Your task to perform on an android device: turn off improve location accuracy Image 0: 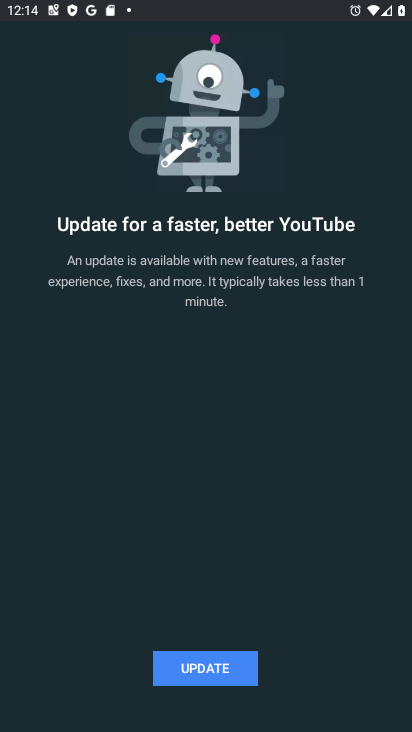
Step 0: press home button
Your task to perform on an android device: turn off improve location accuracy Image 1: 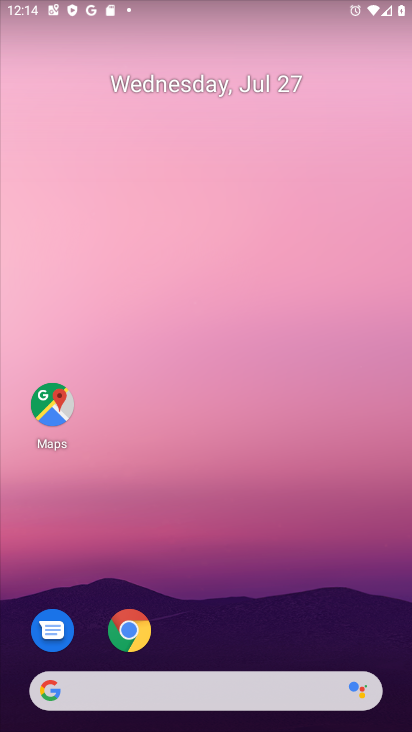
Step 1: drag from (230, 731) to (104, 84)
Your task to perform on an android device: turn off improve location accuracy Image 2: 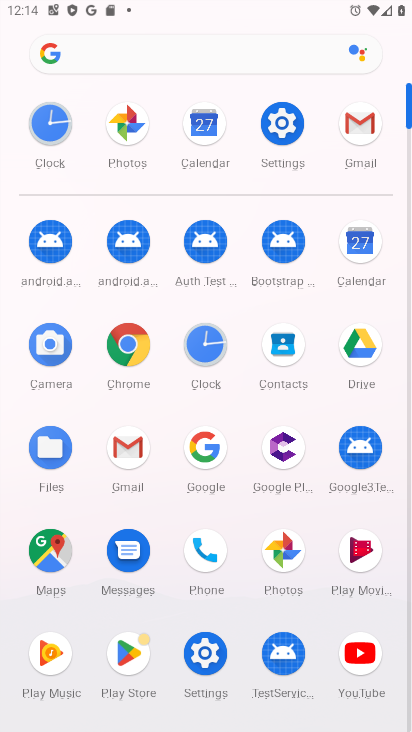
Step 2: click (296, 116)
Your task to perform on an android device: turn off improve location accuracy Image 3: 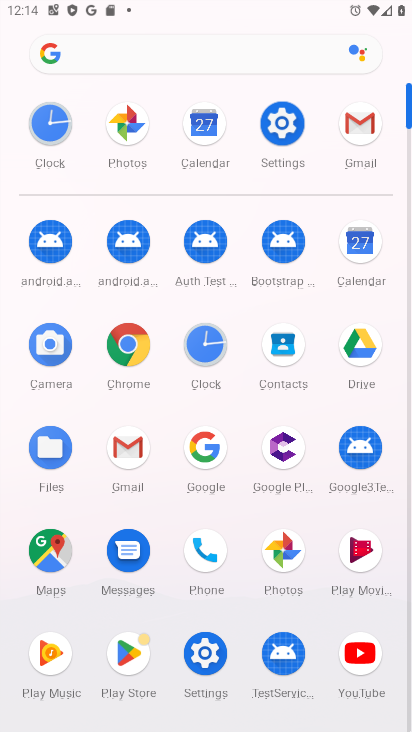
Step 3: click (296, 116)
Your task to perform on an android device: turn off improve location accuracy Image 4: 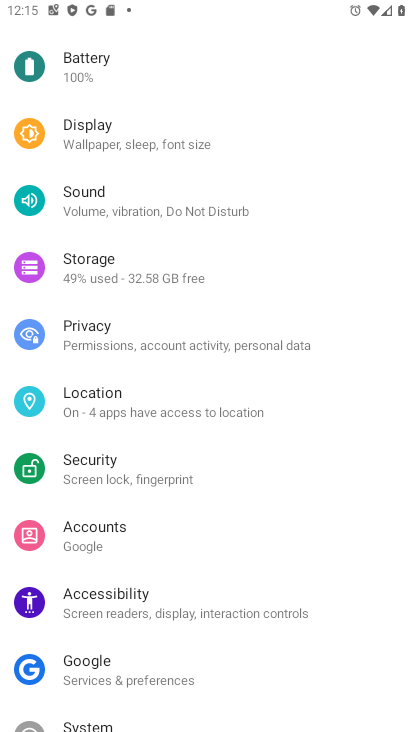
Step 4: click (140, 401)
Your task to perform on an android device: turn off improve location accuracy Image 5: 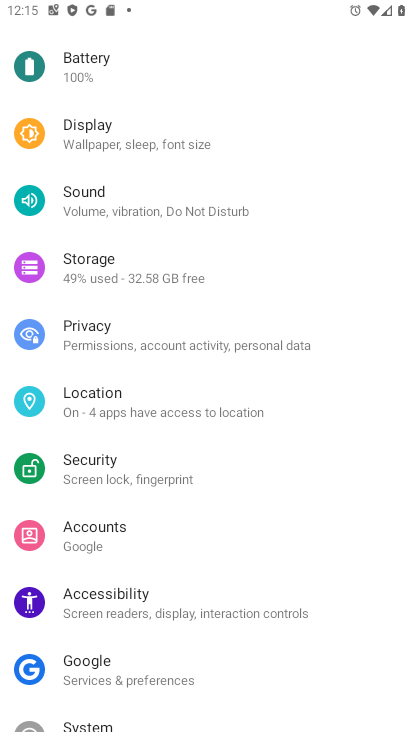
Step 5: click (140, 401)
Your task to perform on an android device: turn off improve location accuracy Image 6: 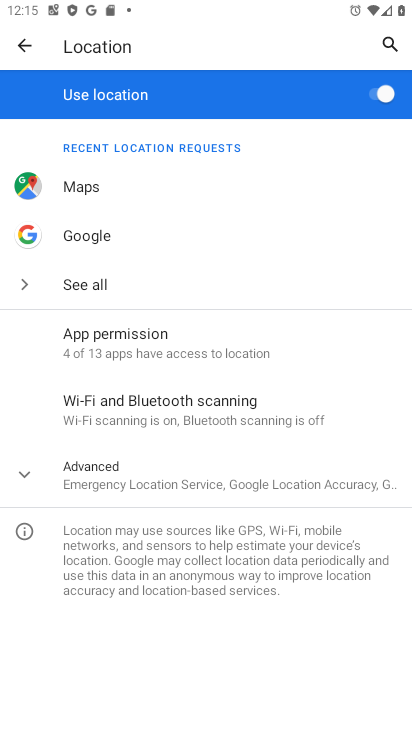
Step 6: click (206, 487)
Your task to perform on an android device: turn off improve location accuracy Image 7: 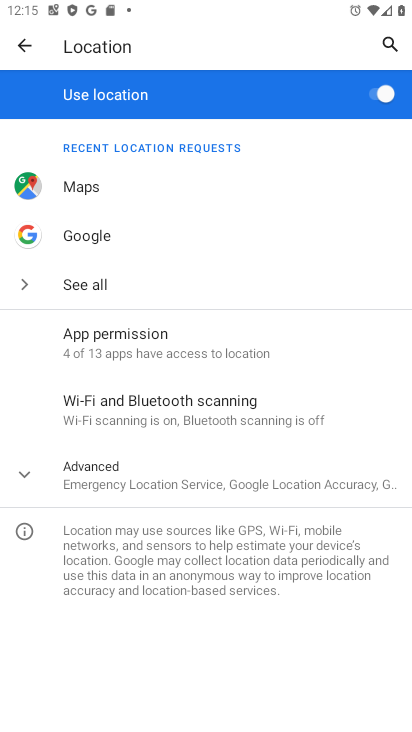
Step 7: click (206, 487)
Your task to perform on an android device: turn off improve location accuracy Image 8: 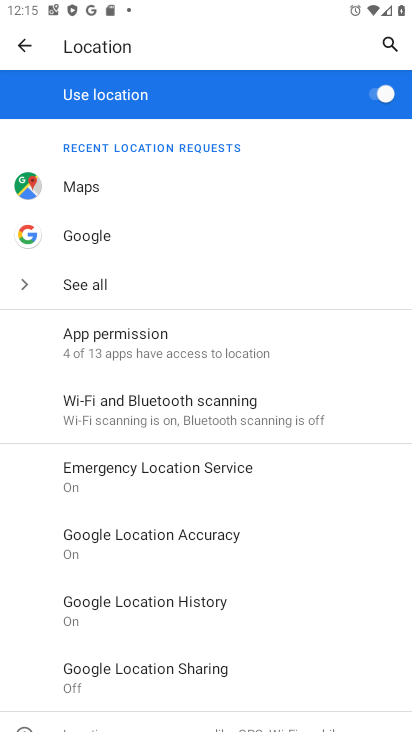
Step 8: click (228, 533)
Your task to perform on an android device: turn off improve location accuracy Image 9: 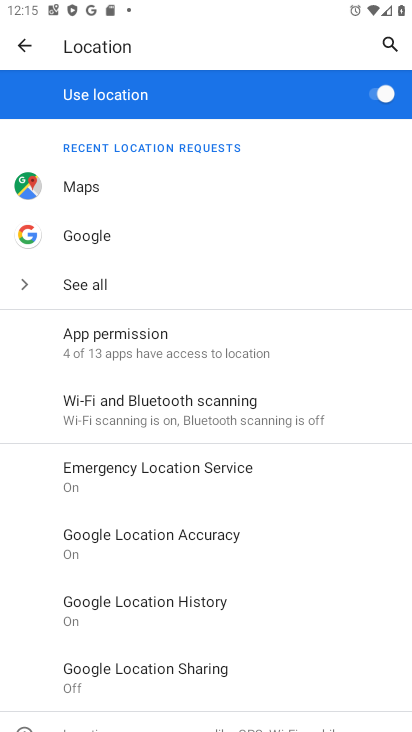
Step 9: click (228, 533)
Your task to perform on an android device: turn off improve location accuracy Image 10: 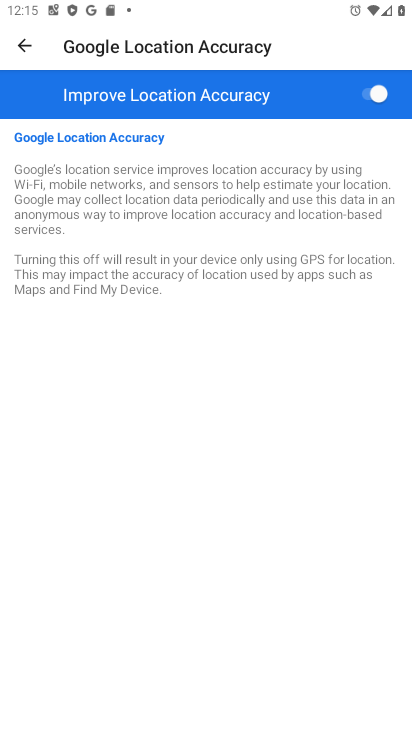
Step 10: click (373, 84)
Your task to perform on an android device: turn off improve location accuracy Image 11: 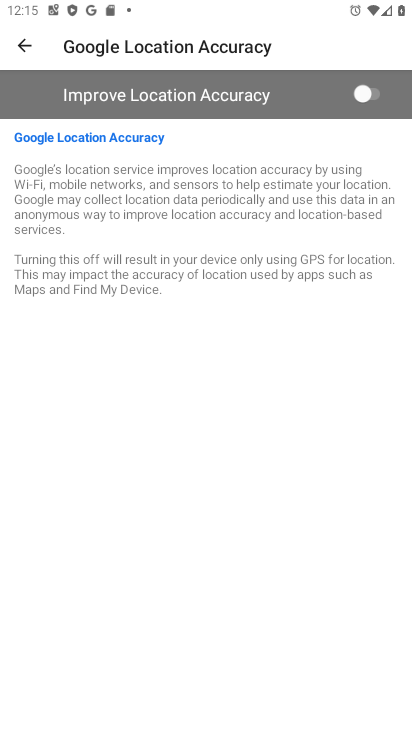
Step 11: task complete